Your task to perform on an android device: search for starred emails in the gmail app Image 0: 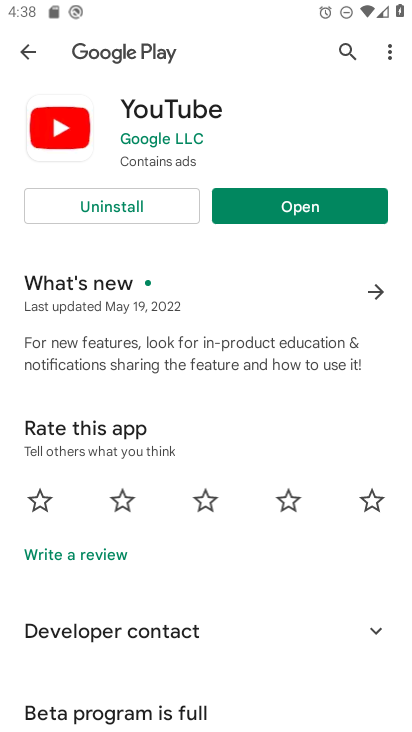
Step 0: press home button
Your task to perform on an android device: search for starred emails in the gmail app Image 1: 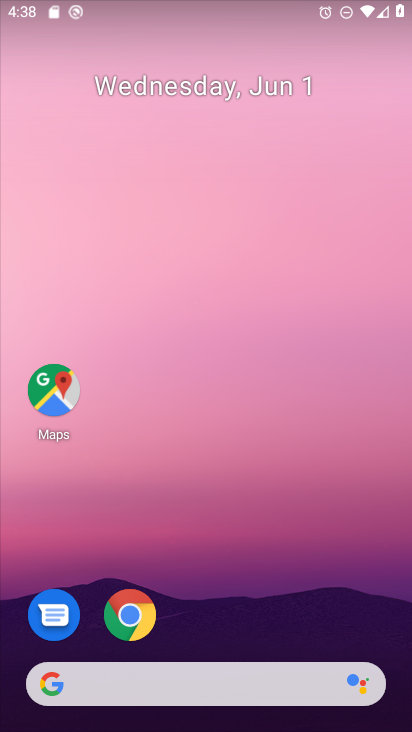
Step 1: click (227, 617)
Your task to perform on an android device: search for starred emails in the gmail app Image 2: 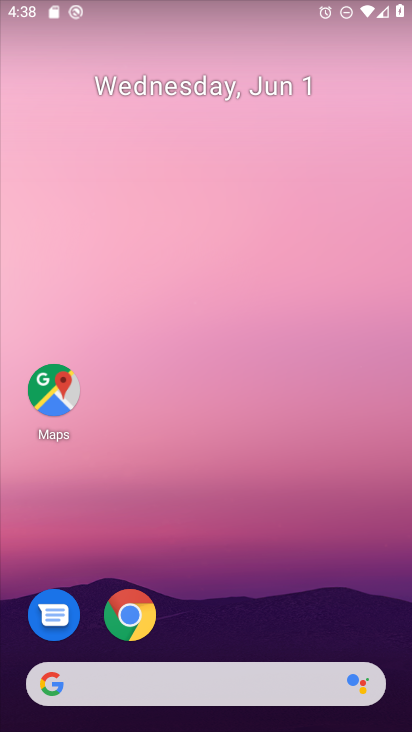
Step 2: drag from (241, 364) to (242, 38)
Your task to perform on an android device: search for starred emails in the gmail app Image 3: 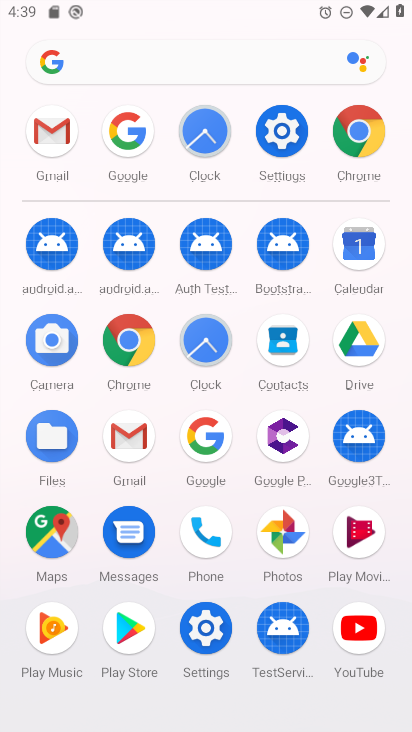
Step 3: click (47, 126)
Your task to perform on an android device: search for starred emails in the gmail app Image 4: 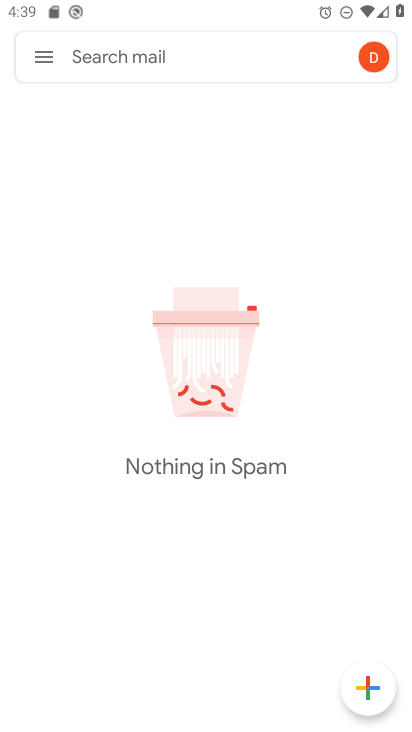
Step 4: click (30, 47)
Your task to perform on an android device: search for starred emails in the gmail app Image 5: 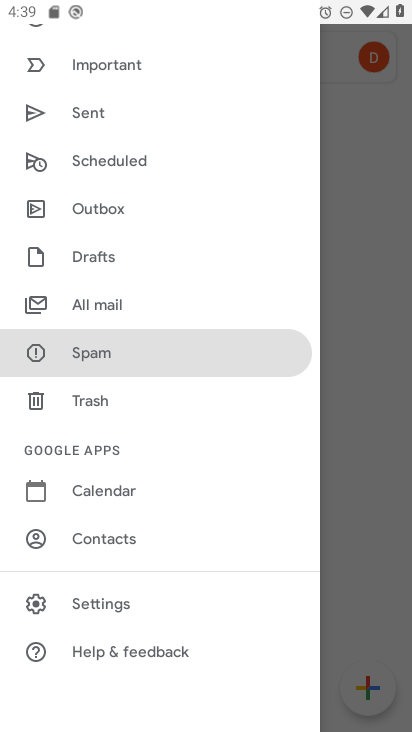
Step 5: drag from (102, 121) to (146, 534)
Your task to perform on an android device: search for starred emails in the gmail app Image 6: 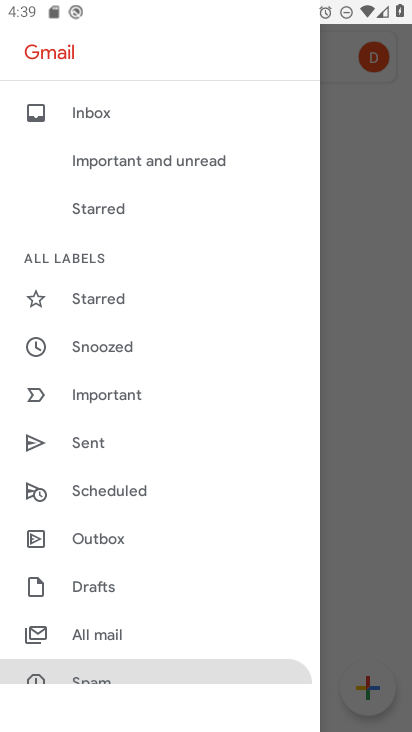
Step 6: click (135, 293)
Your task to perform on an android device: search for starred emails in the gmail app Image 7: 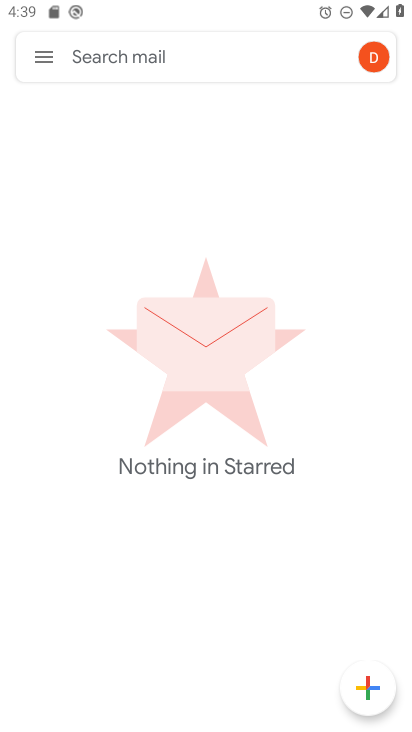
Step 7: task complete